Your task to perform on an android device: add a contact Image 0: 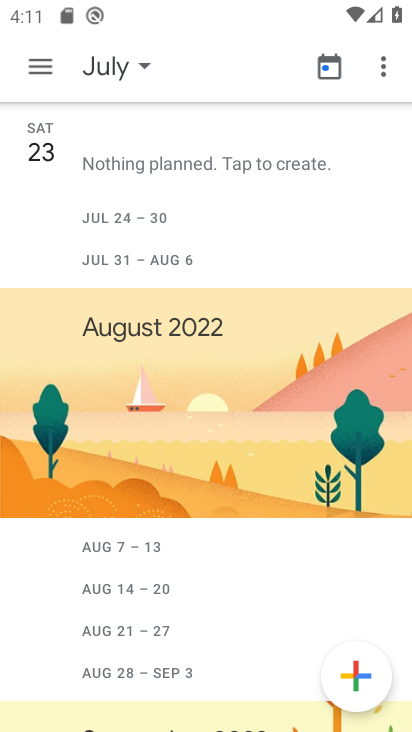
Step 0: press home button
Your task to perform on an android device: add a contact Image 1: 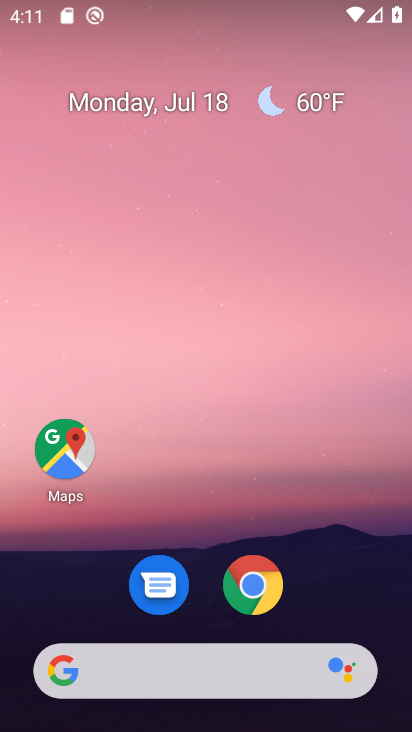
Step 1: drag from (246, 511) to (213, 39)
Your task to perform on an android device: add a contact Image 2: 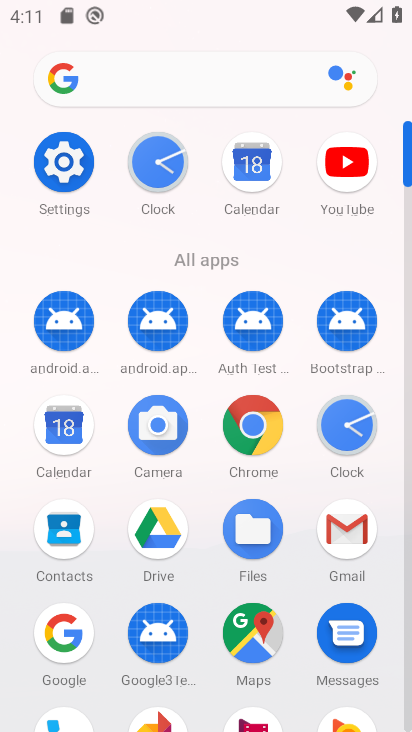
Step 2: click (65, 539)
Your task to perform on an android device: add a contact Image 3: 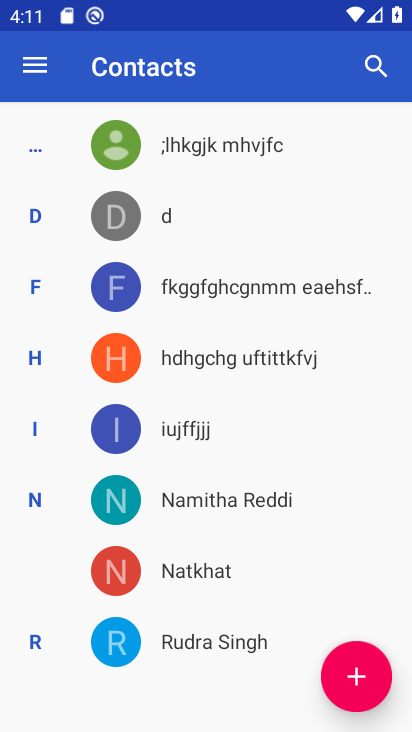
Step 3: click (349, 677)
Your task to perform on an android device: add a contact Image 4: 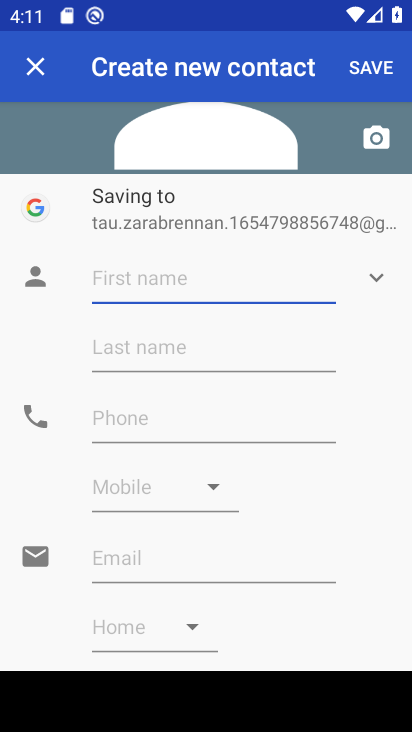
Step 4: type "Shiv Shankar"
Your task to perform on an android device: add a contact Image 5: 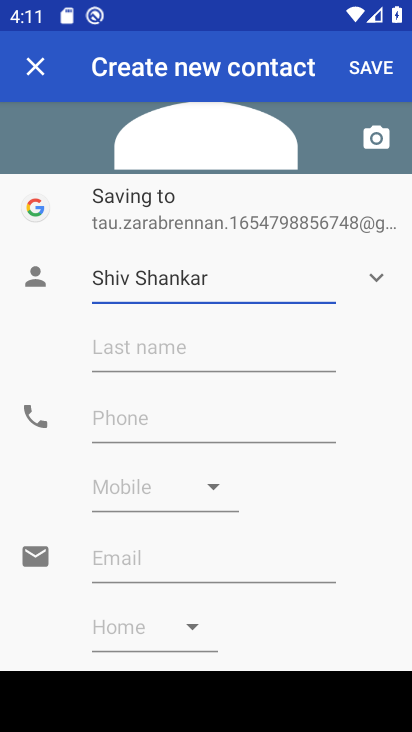
Step 5: click (214, 427)
Your task to perform on an android device: add a contact Image 6: 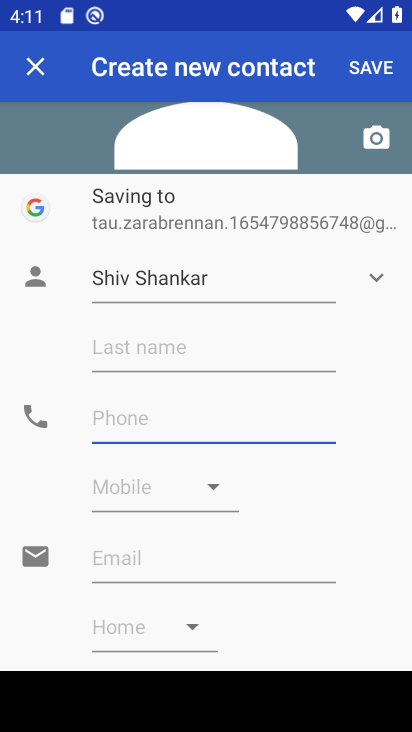
Step 6: type "91999777555333"
Your task to perform on an android device: add a contact Image 7: 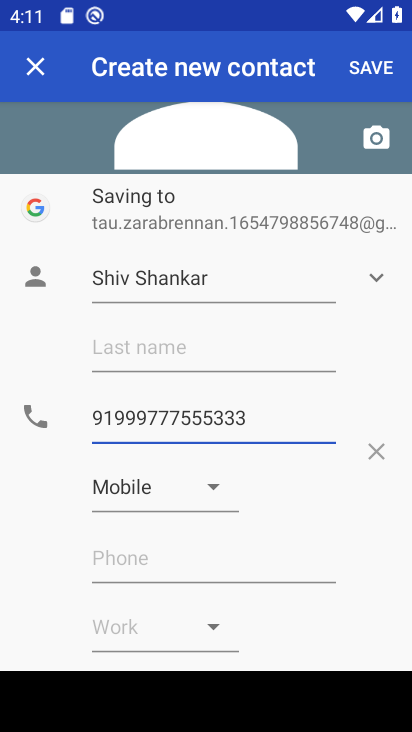
Step 7: click (363, 74)
Your task to perform on an android device: add a contact Image 8: 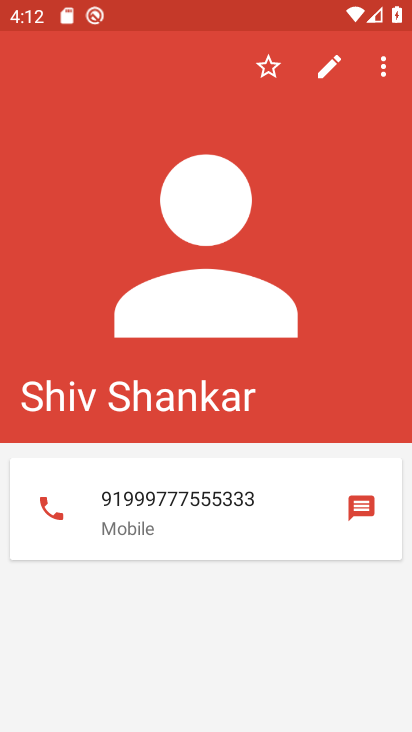
Step 8: task complete